Your task to perform on an android device: add a label to a message in the gmail app Image 0: 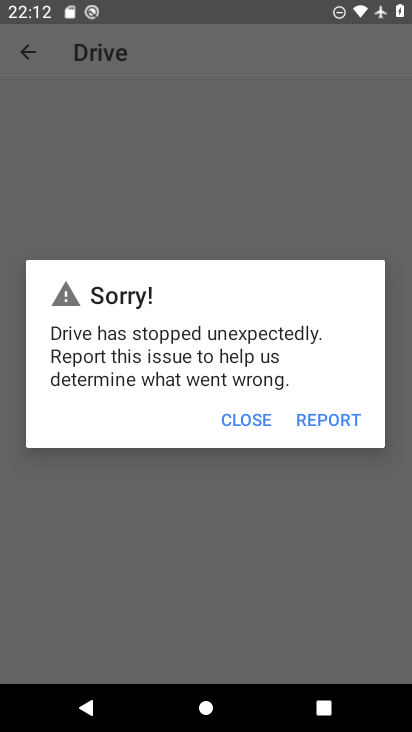
Step 0: press home button
Your task to perform on an android device: add a label to a message in the gmail app Image 1: 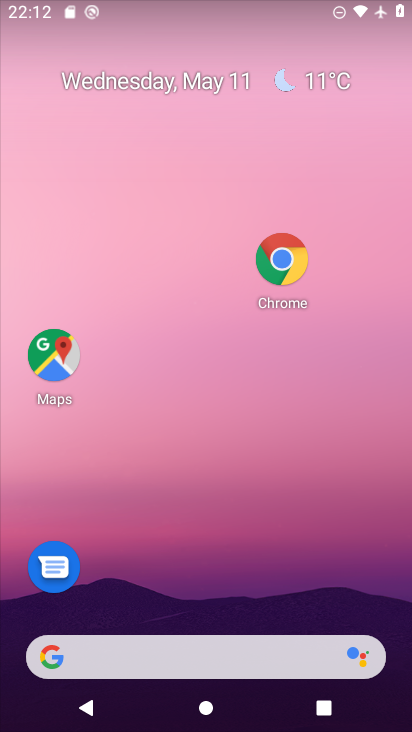
Step 1: drag from (130, 670) to (316, 151)
Your task to perform on an android device: add a label to a message in the gmail app Image 2: 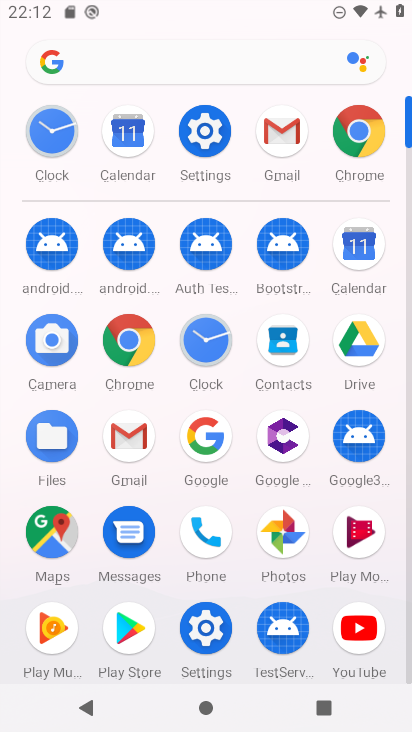
Step 2: click (268, 152)
Your task to perform on an android device: add a label to a message in the gmail app Image 3: 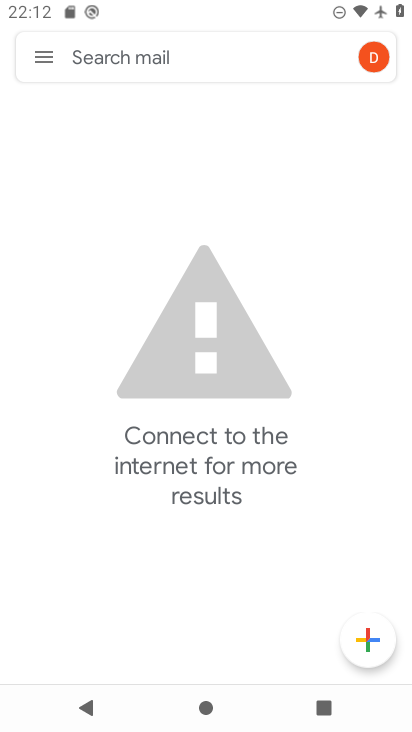
Step 3: drag from (201, 186) to (182, 496)
Your task to perform on an android device: add a label to a message in the gmail app Image 4: 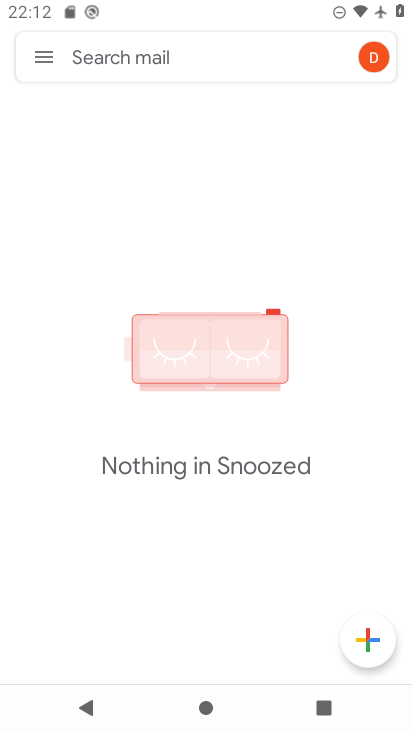
Step 4: click (51, 48)
Your task to perform on an android device: add a label to a message in the gmail app Image 5: 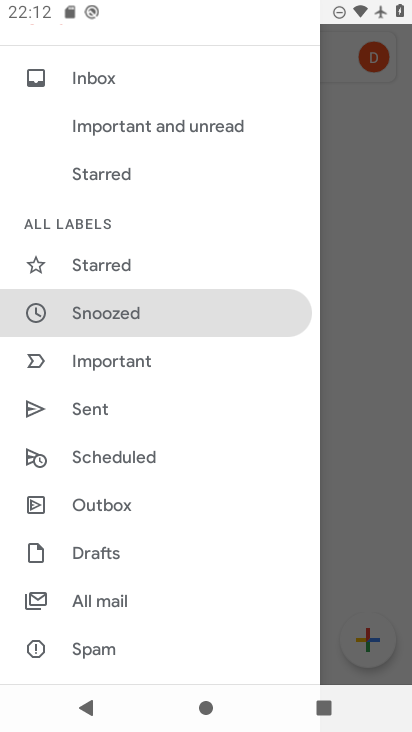
Step 5: click (102, 599)
Your task to perform on an android device: add a label to a message in the gmail app Image 6: 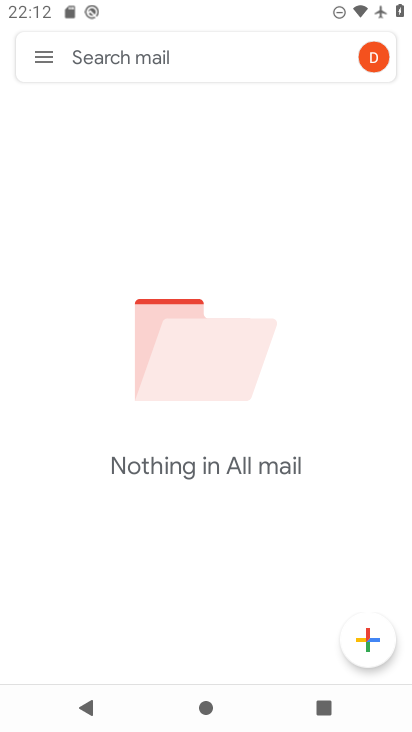
Step 6: task complete